Your task to perform on an android device: Search for "razer blade" on newegg.com, select the first entry, add it to the cart, then select checkout. Image 0: 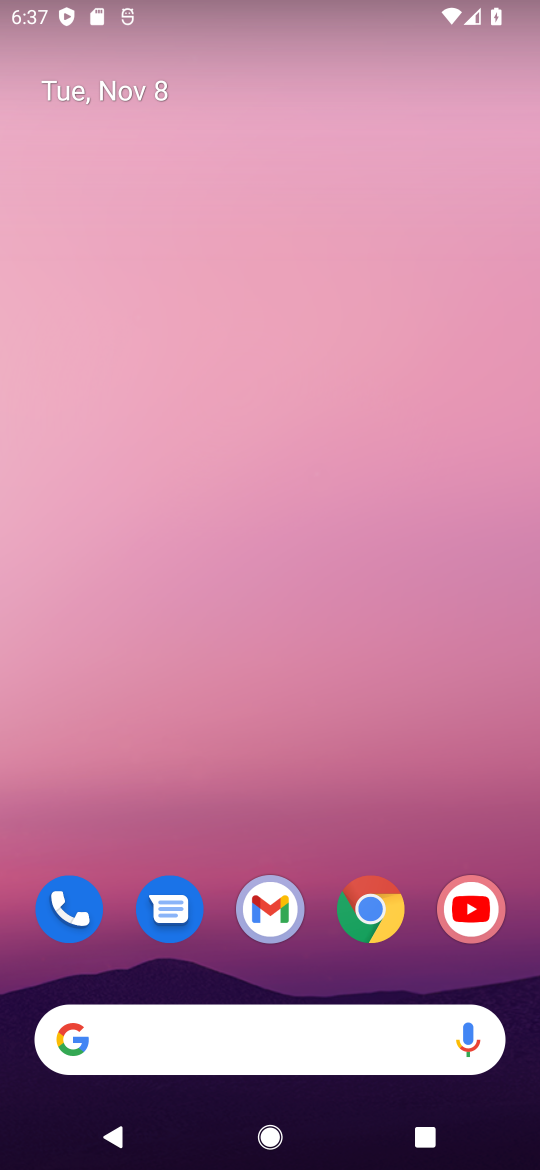
Step 0: click (367, 907)
Your task to perform on an android device: Search for "razer blade" on newegg.com, select the first entry, add it to the cart, then select checkout. Image 1: 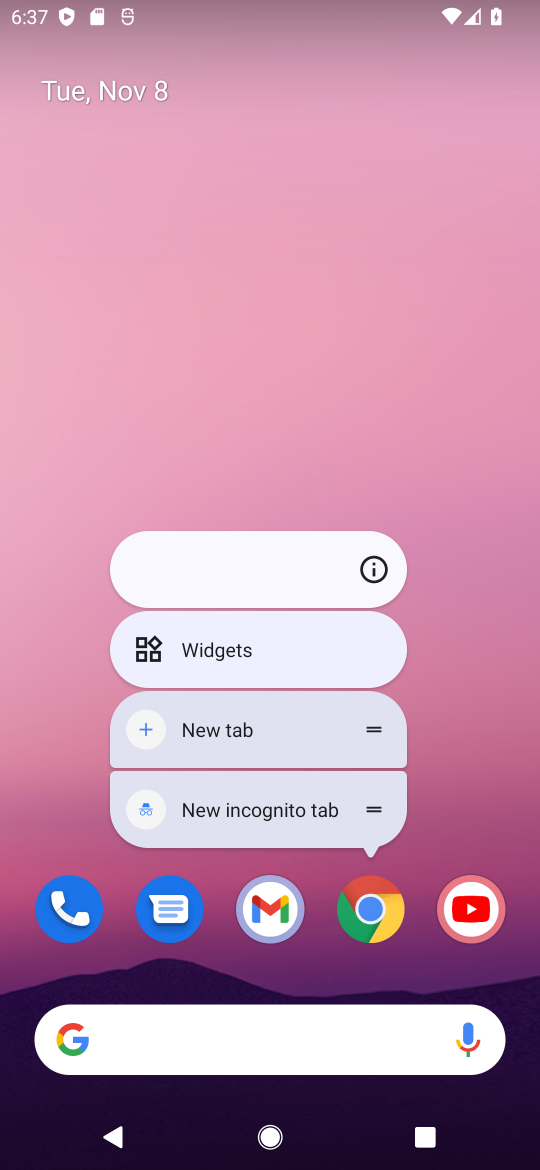
Step 1: click (362, 901)
Your task to perform on an android device: Search for "razer blade" on newegg.com, select the first entry, add it to the cart, then select checkout. Image 2: 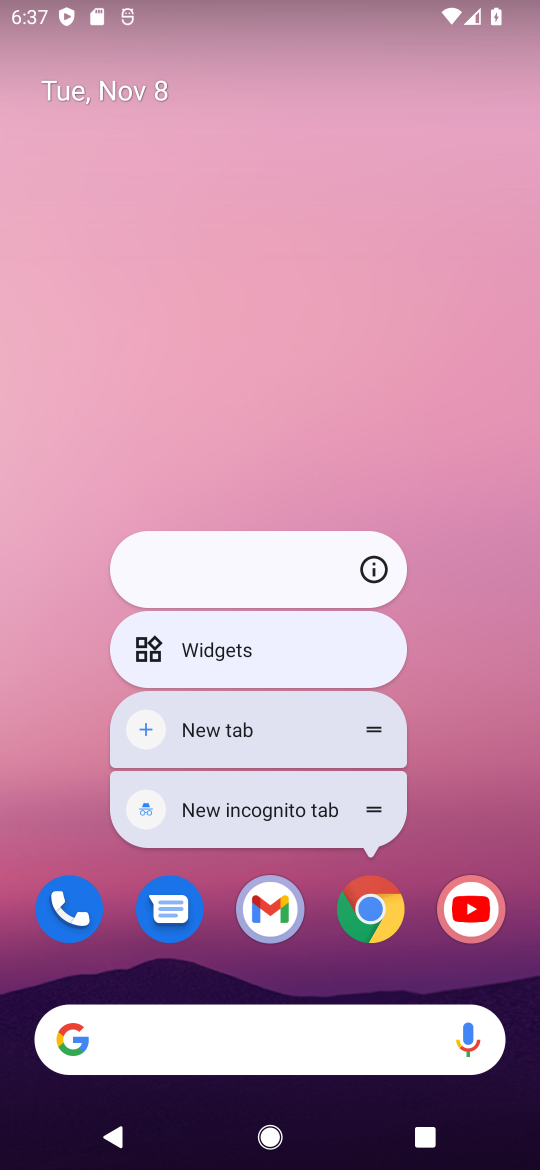
Step 2: click (385, 899)
Your task to perform on an android device: Search for "razer blade" on newegg.com, select the first entry, add it to the cart, then select checkout. Image 3: 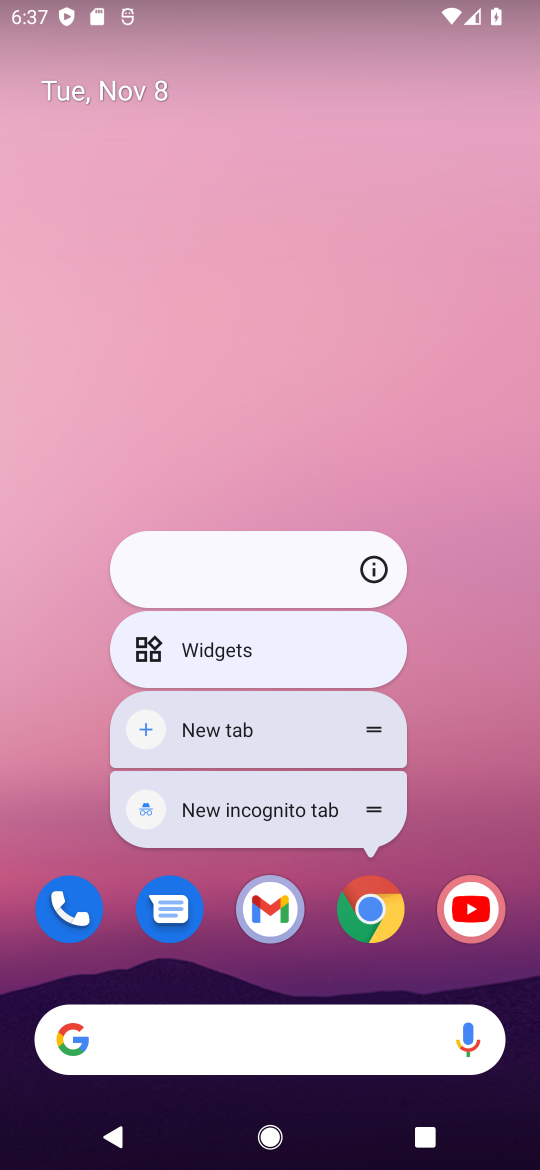
Step 3: click (375, 904)
Your task to perform on an android device: Search for "razer blade" on newegg.com, select the first entry, add it to the cart, then select checkout. Image 4: 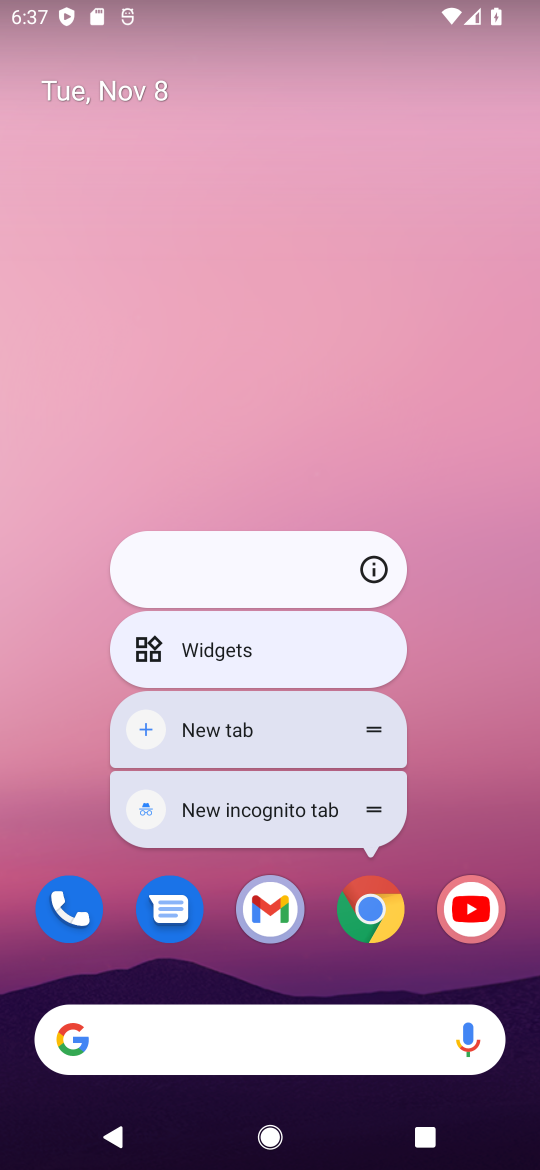
Step 4: click (364, 915)
Your task to perform on an android device: Search for "razer blade" on newegg.com, select the first entry, add it to the cart, then select checkout. Image 5: 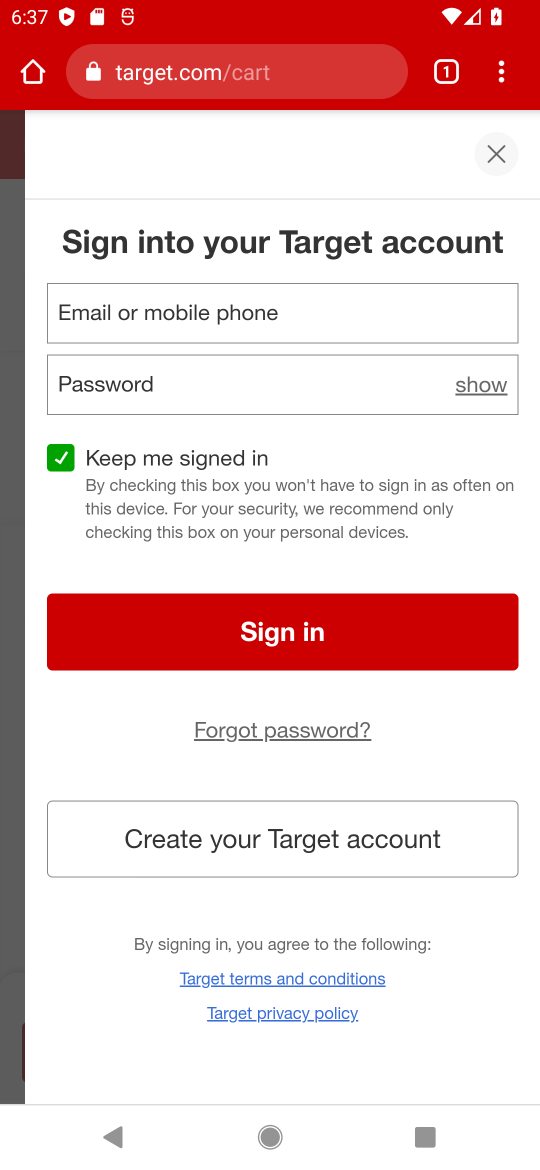
Step 5: click (330, 66)
Your task to perform on an android device: Search for "razer blade" on newegg.com, select the first entry, add it to the cart, then select checkout. Image 6: 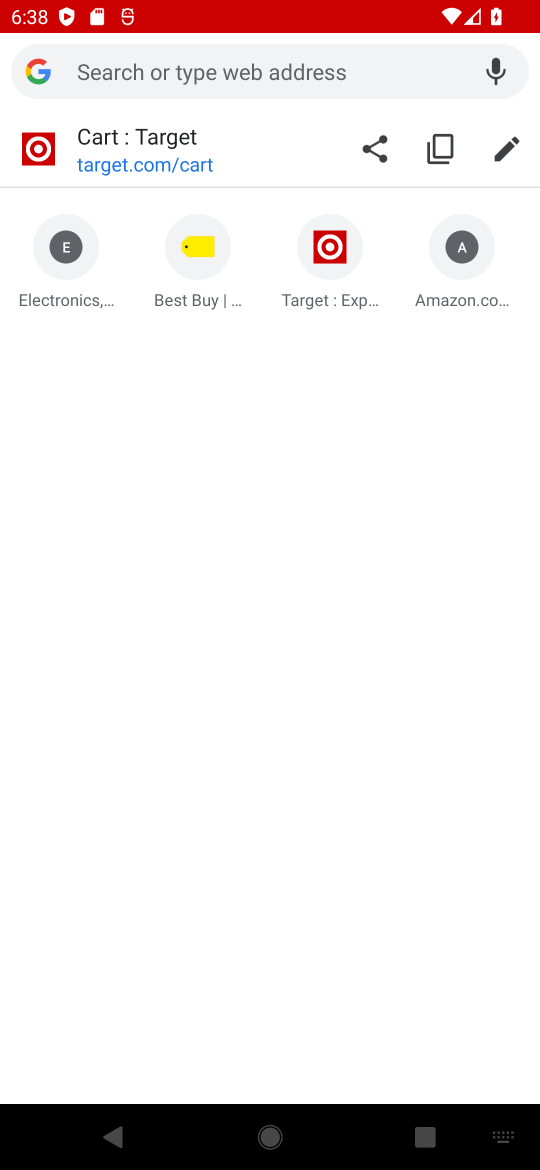
Step 6: type "newegg.com"
Your task to perform on an android device: Search for "razer blade" on newegg.com, select the first entry, add it to the cart, then select checkout. Image 7: 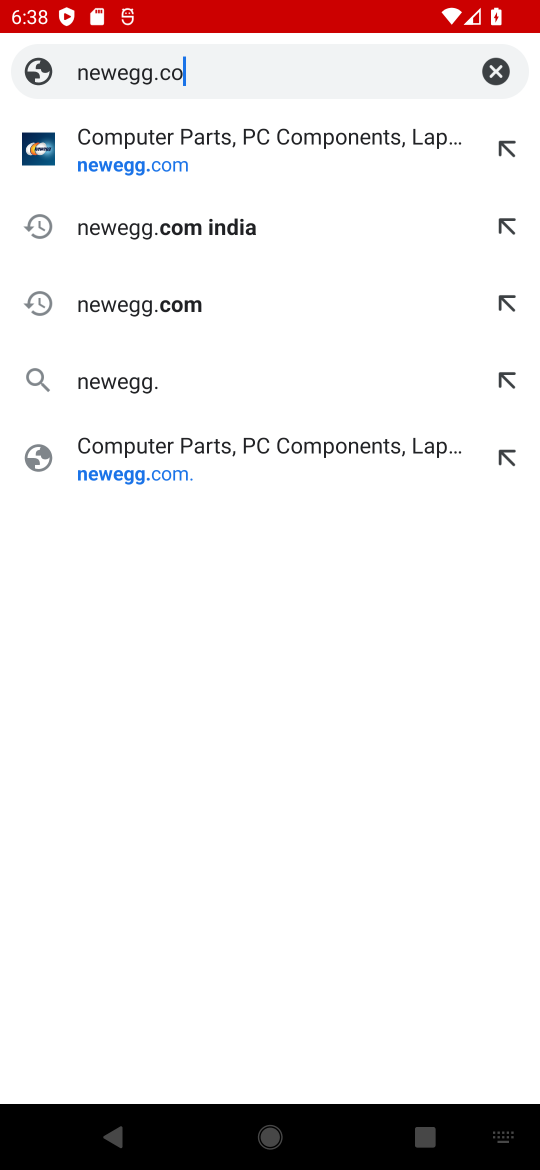
Step 7: press enter
Your task to perform on an android device: Search for "razer blade" on newegg.com, select the first entry, add it to the cart, then select checkout. Image 8: 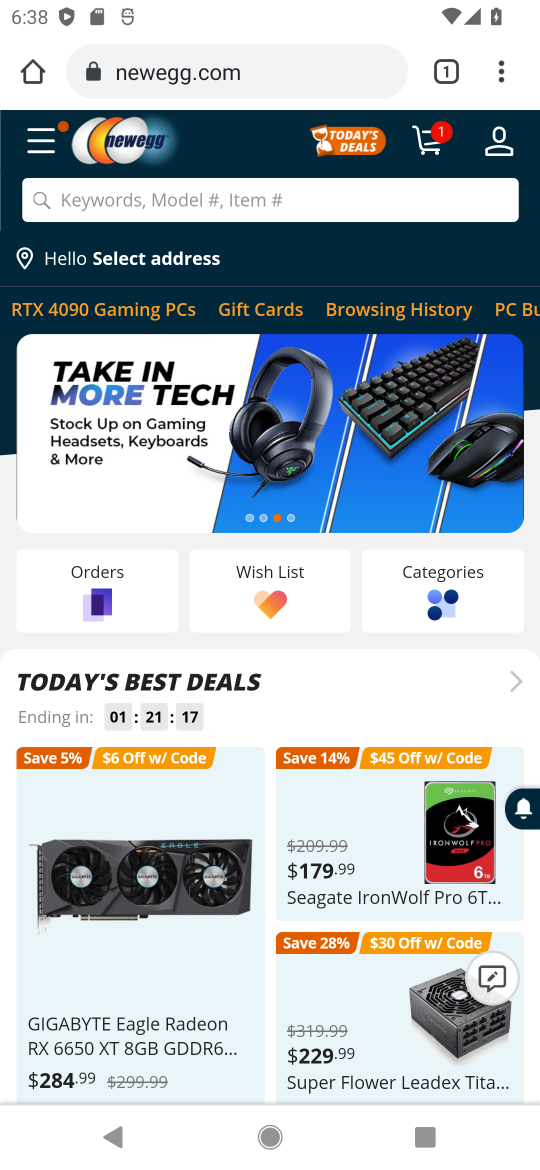
Step 8: click (374, 198)
Your task to perform on an android device: Search for "razer blade" on newegg.com, select the first entry, add it to the cart, then select checkout. Image 9: 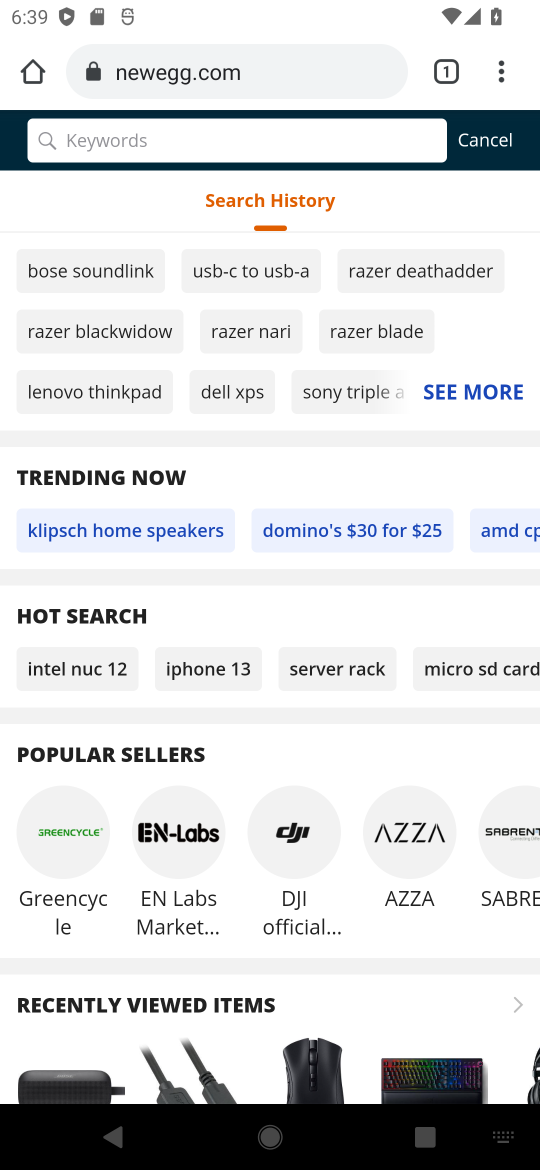
Step 9: type "razer blade"
Your task to perform on an android device: Search for "razer blade" on newegg.com, select the first entry, add it to the cart, then select checkout. Image 10: 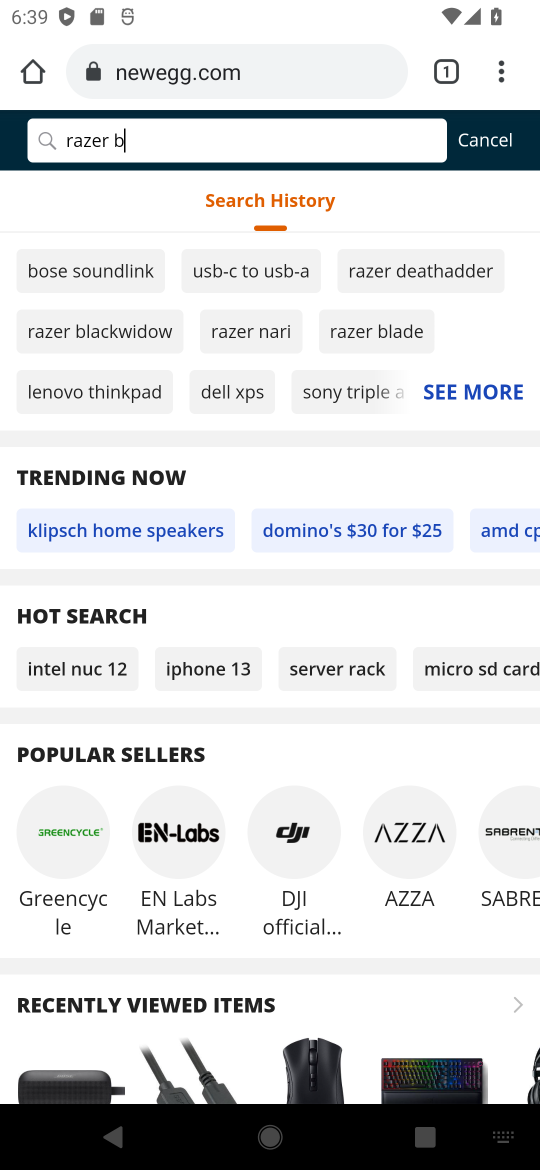
Step 10: press enter
Your task to perform on an android device: Search for "razer blade" on newegg.com, select the first entry, add it to the cart, then select checkout. Image 11: 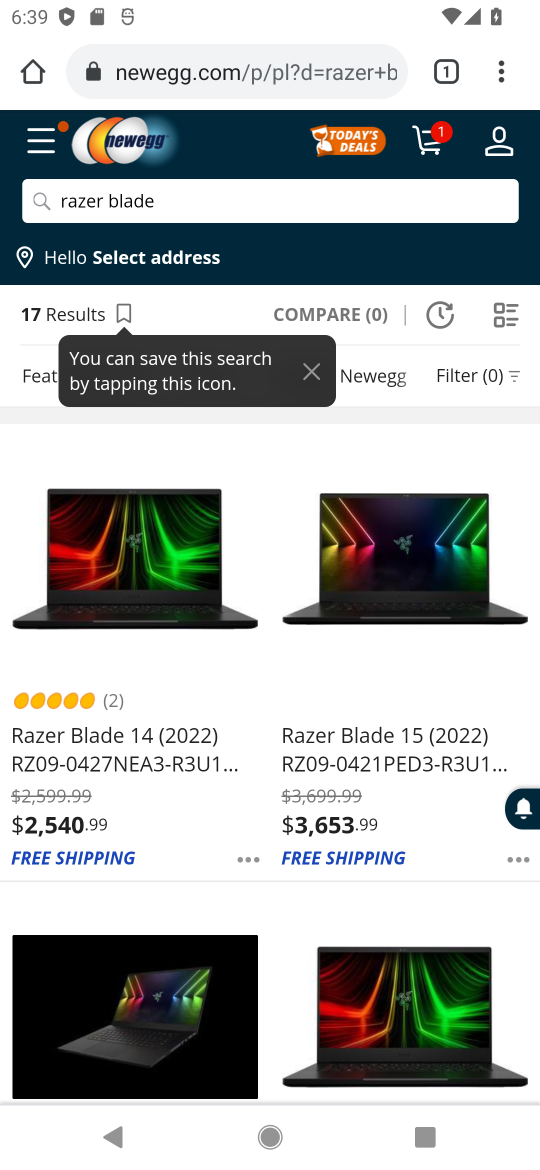
Step 11: click (130, 777)
Your task to perform on an android device: Search for "razer blade" on newegg.com, select the first entry, add it to the cart, then select checkout. Image 12: 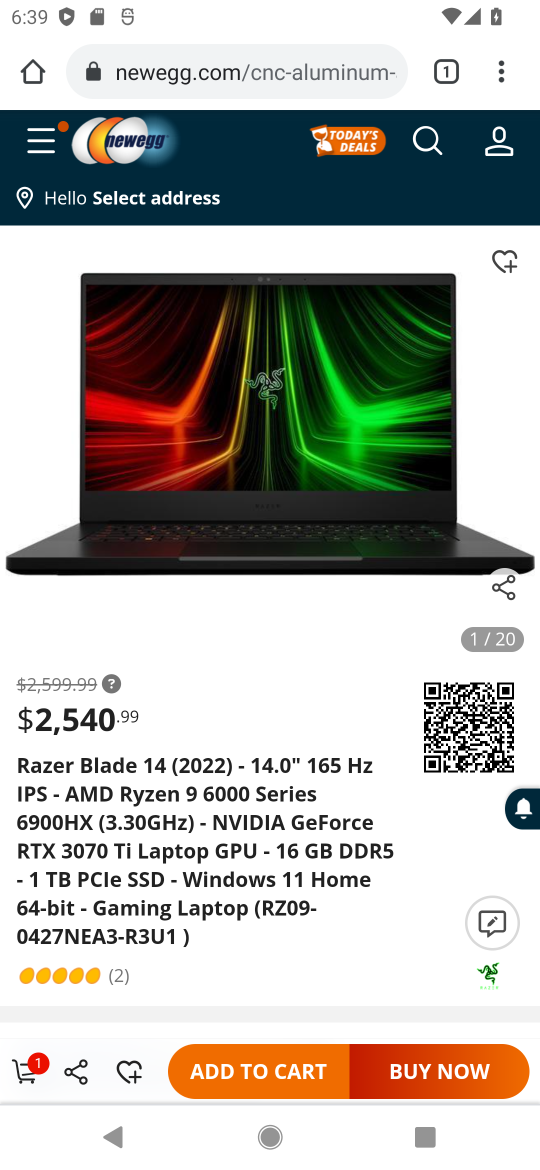
Step 12: drag from (201, 955) to (358, 563)
Your task to perform on an android device: Search for "razer blade" on newegg.com, select the first entry, add it to the cart, then select checkout. Image 13: 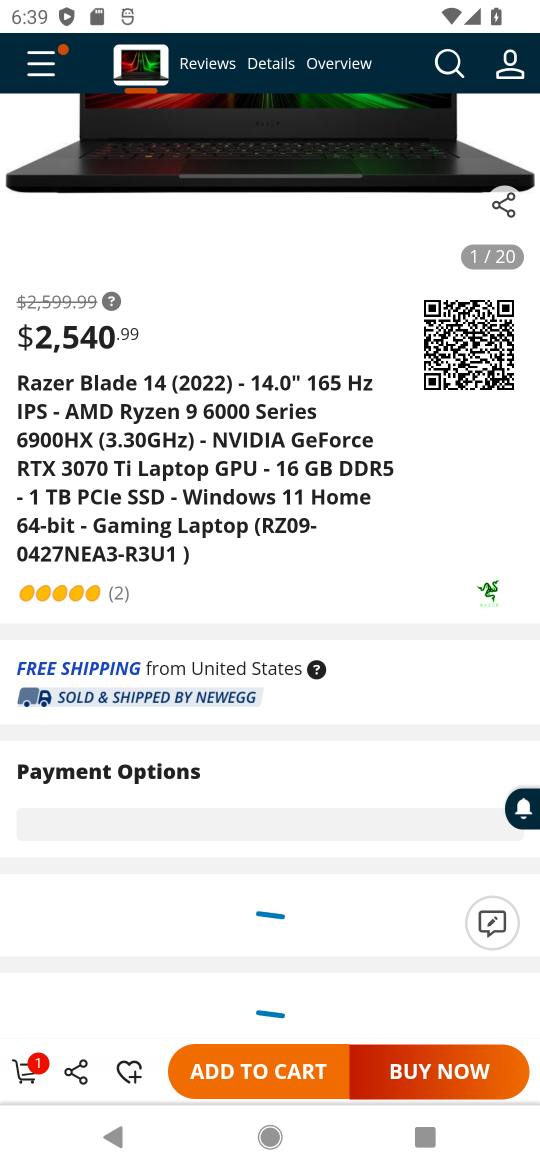
Step 13: click (282, 1069)
Your task to perform on an android device: Search for "razer blade" on newegg.com, select the first entry, add it to the cart, then select checkout. Image 14: 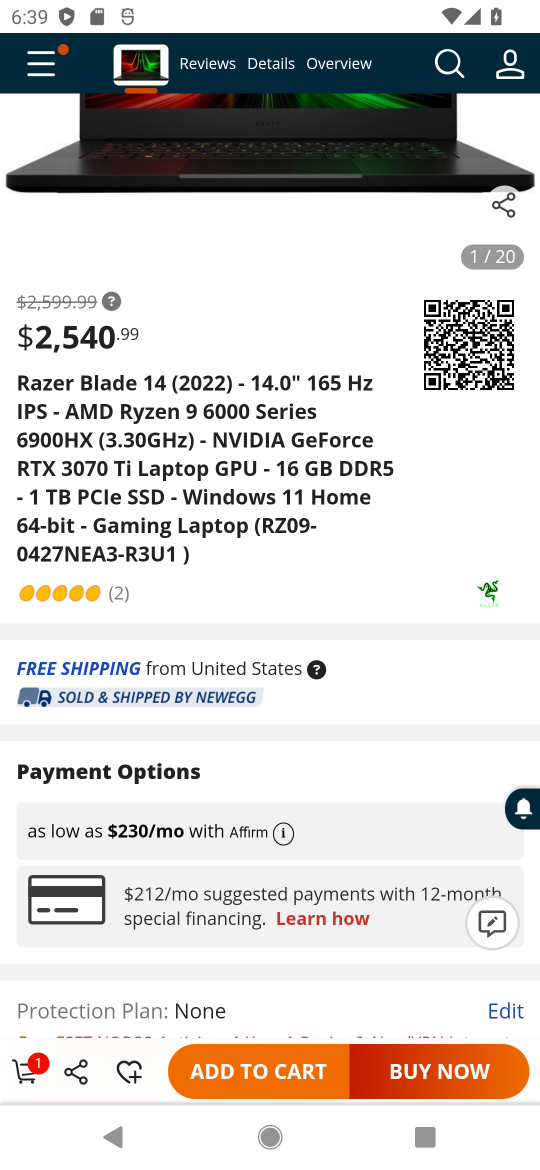
Step 14: click (237, 1065)
Your task to perform on an android device: Search for "razer blade" on newegg.com, select the first entry, add it to the cart, then select checkout. Image 15: 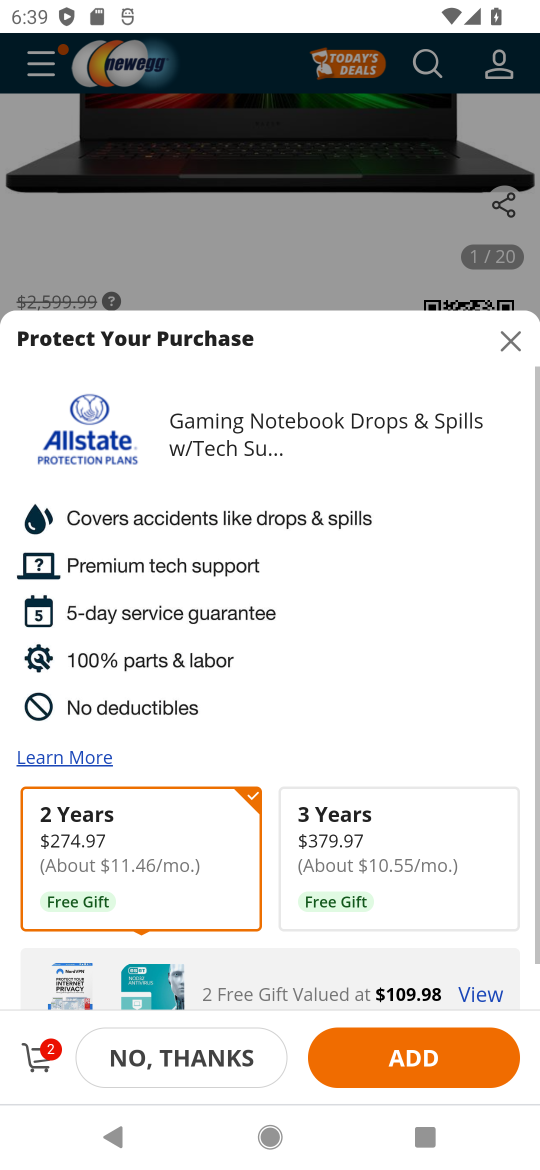
Step 15: click (38, 1063)
Your task to perform on an android device: Search for "razer blade" on newegg.com, select the first entry, add it to the cart, then select checkout. Image 16: 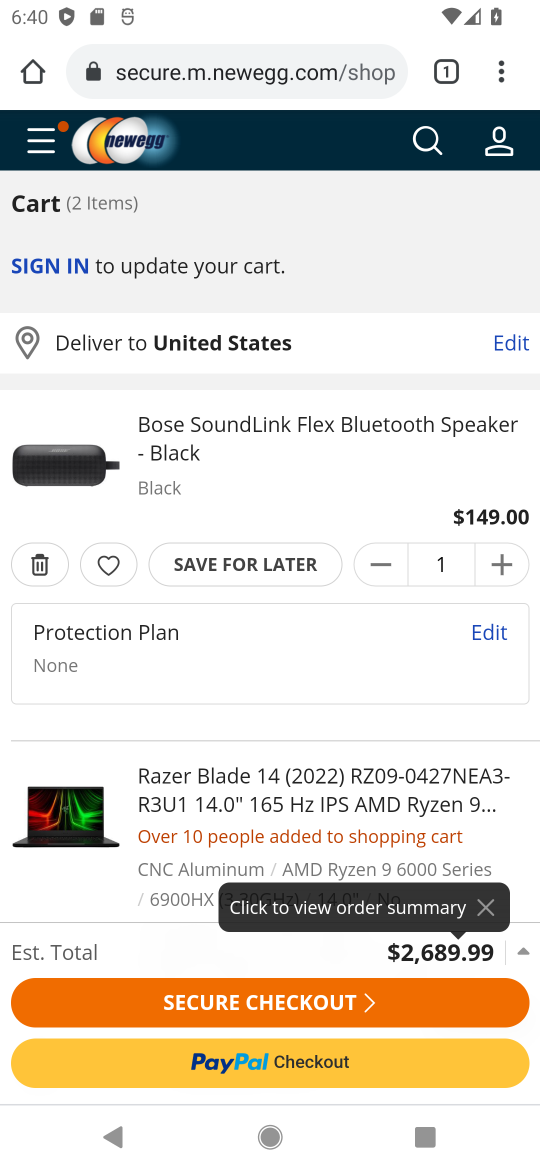
Step 16: click (36, 562)
Your task to perform on an android device: Search for "razer blade" on newegg.com, select the first entry, add it to the cart, then select checkout. Image 17: 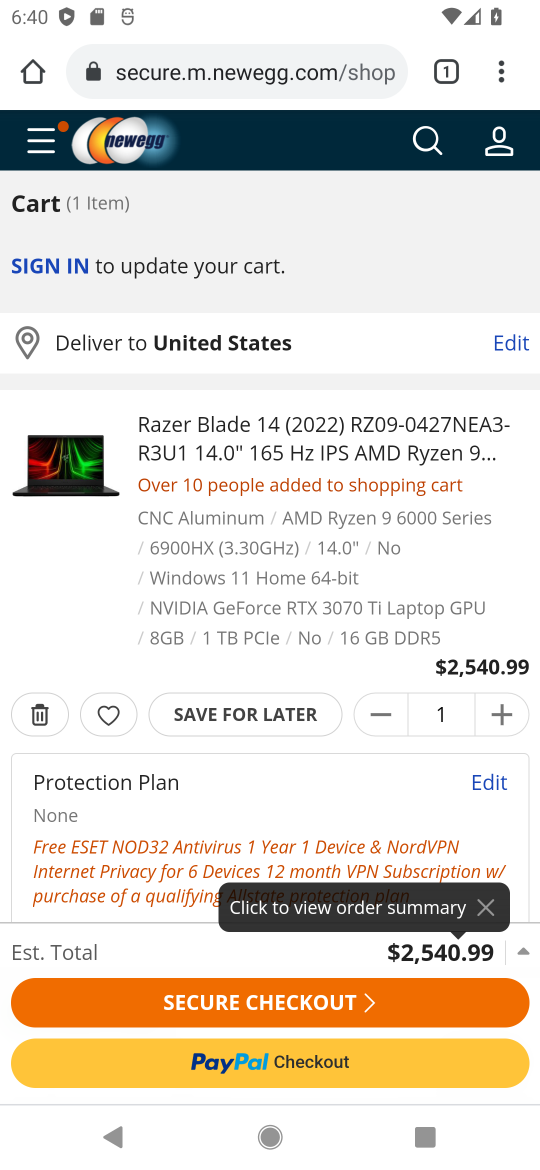
Step 17: click (254, 1001)
Your task to perform on an android device: Search for "razer blade" on newegg.com, select the first entry, add it to the cart, then select checkout. Image 18: 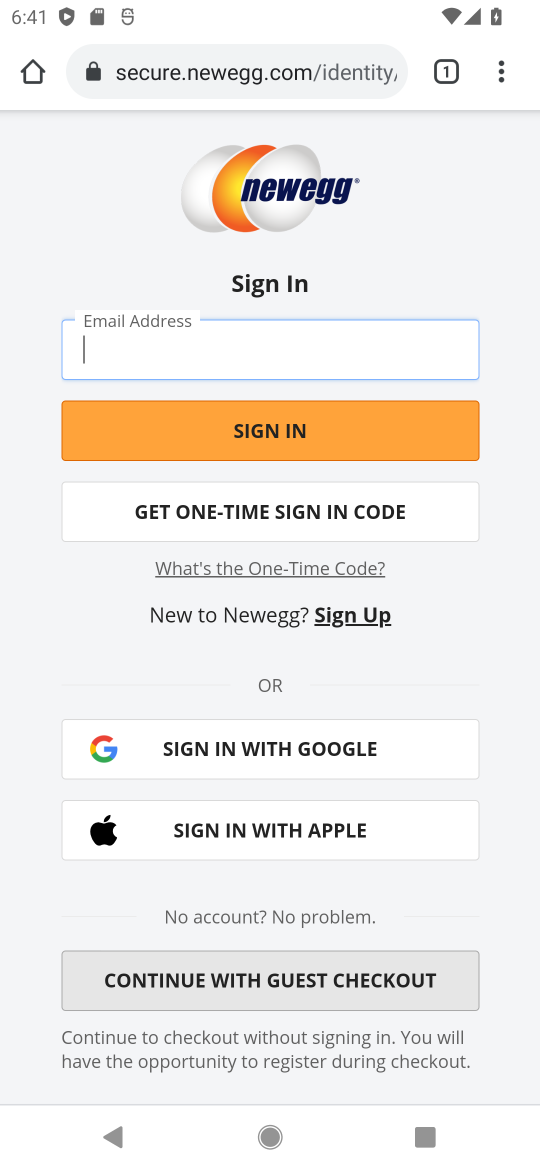
Step 18: task complete